Your task to perform on an android device: open chrome and create a bookmark for the current page Image 0: 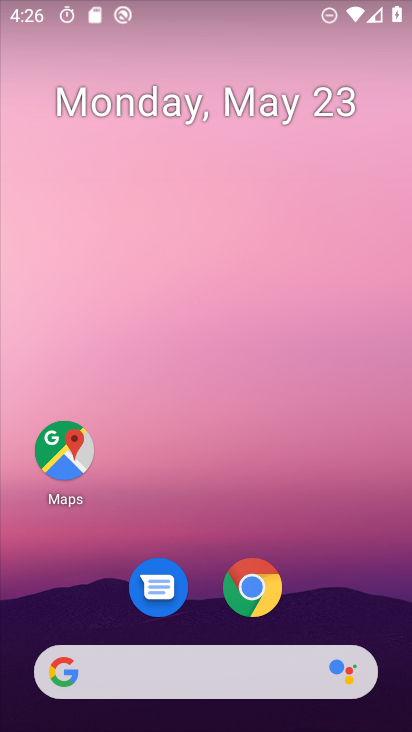
Step 0: click (249, 580)
Your task to perform on an android device: open chrome and create a bookmark for the current page Image 1: 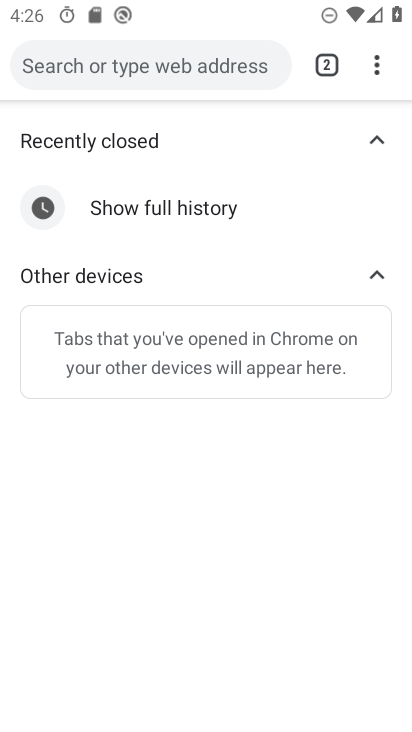
Step 1: click (381, 75)
Your task to perform on an android device: open chrome and create a bookmark for the current page Image 2: 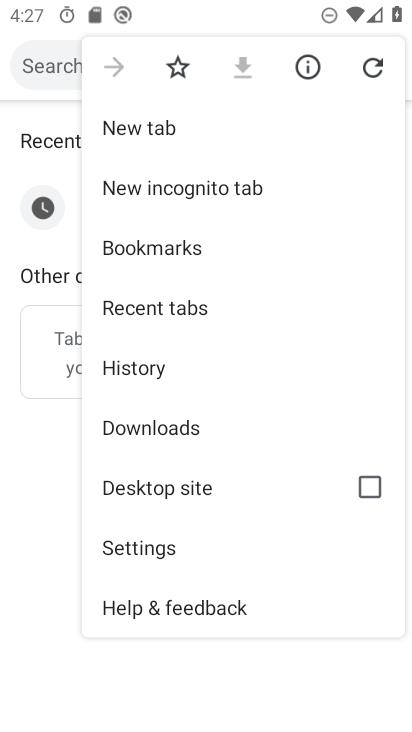
Step 2: click (175, 70)
Your task to perform on an android device: open chrome and create a bookmark for the current page Image 3: 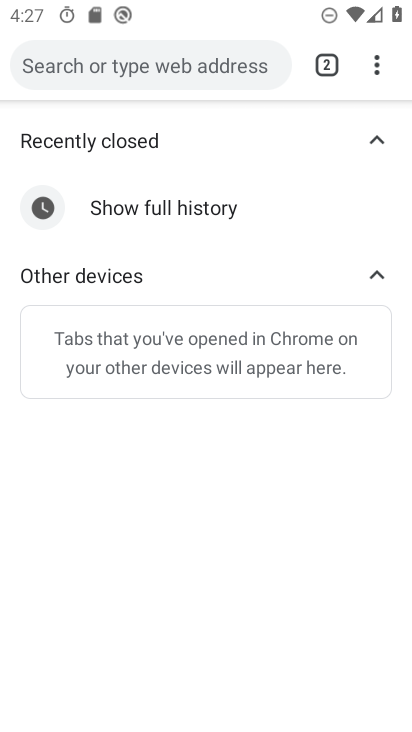
Step 3: task complete